Your task to perform on an android device: turn off notifications settings in the gmail app Image 0: 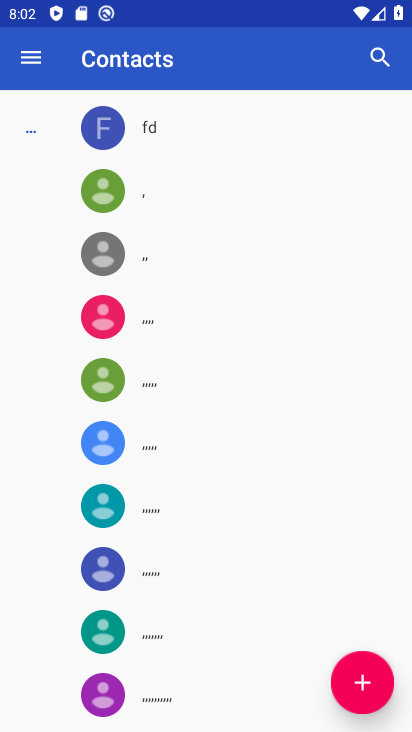
Step 0: press home button
Your task to perform on an android device: turn off notifications settings in the gmail app Image 1: 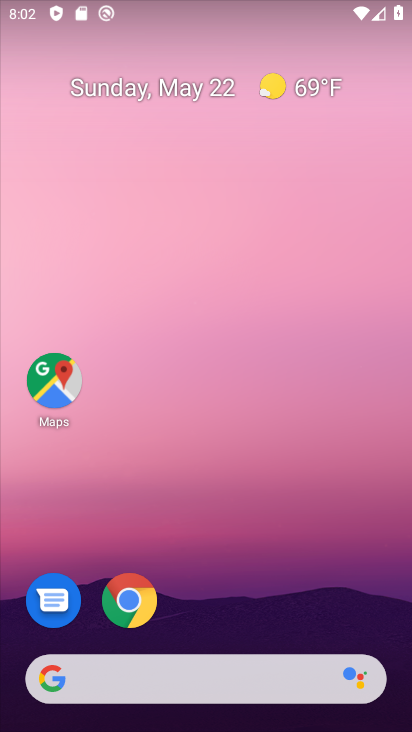
Step 1: drag from (287, 475) to (357, 70)
Your task to perform on an android device: turn off notifications settings in the gmail app Image 2: 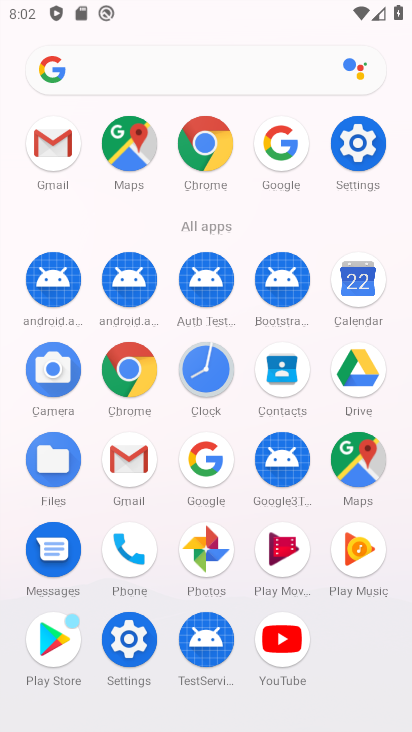
Step 2: click (125, 460)
Your task to perform on an android device: turn off notifications settings in the gmail app Image 3: 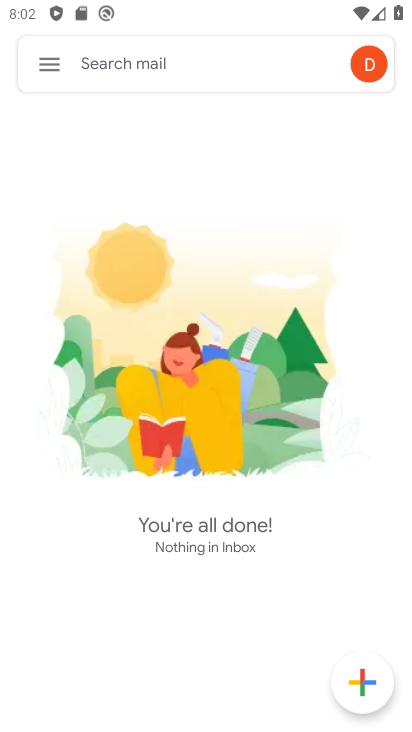
Step 3: click (46, 65)
Your task to perform on an android device: turn off notifications settings in the gmail app Image 4: 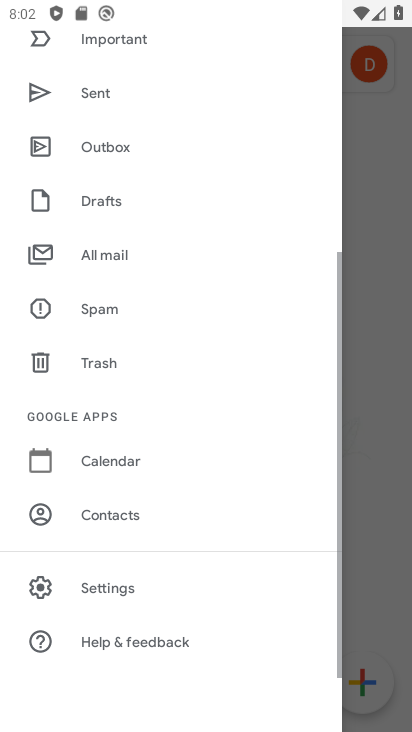
Step 4: drag from (87, 599) to (96, 546)
Your task to perform on an android device: turn off notifications settings in the gmail app Image 5: 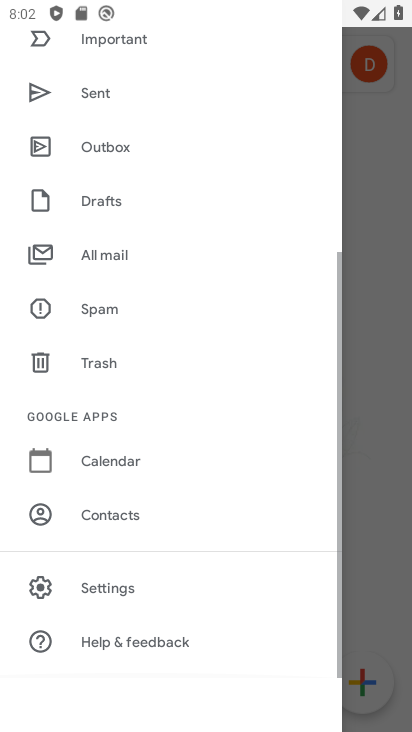
Step 5: click (93, 597)
Your task to perform on an android device: turn off notifications settings in the gmail app Image 6: 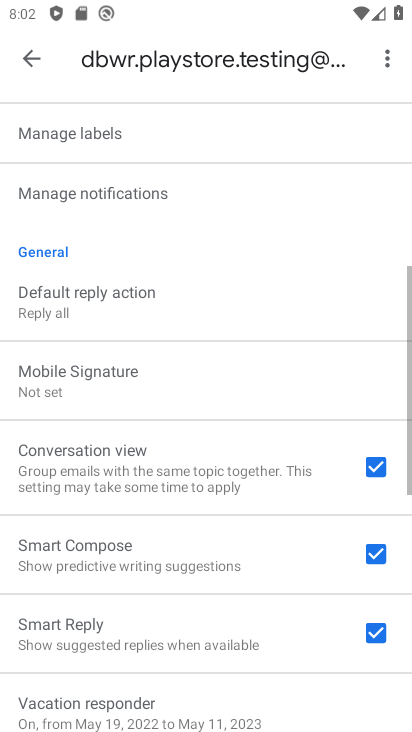
Step 6: drag from (93, 597) to (188, 236)
Your task to perform on an android device: turn off notifications settings in the gmail app Image 7: 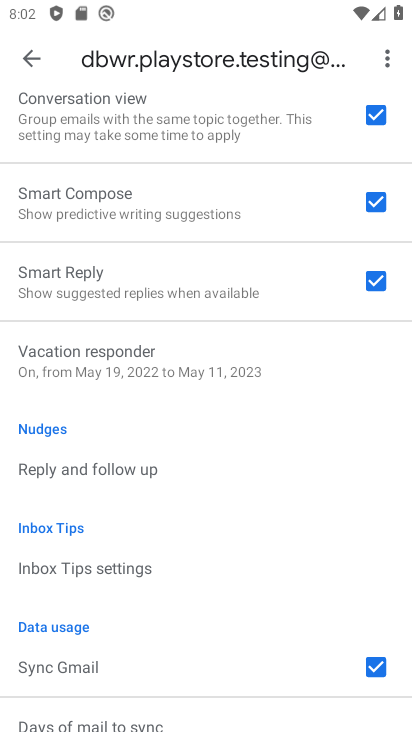
Step 7: drag from (180, 193) to (237, 655)
Your task to perform on an android device: turn off notifications settings in the gmail app Image 8: 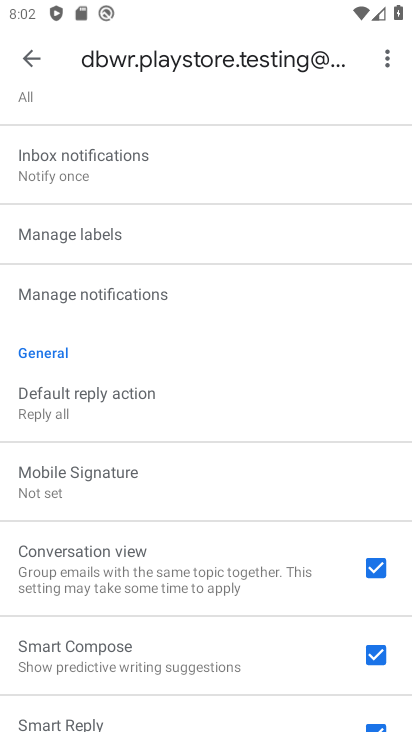
Step 8: drag from (207, 273) to (237, 497)
Your task to perform on an android device: turn off notifications settings in the gmail app Image 9: 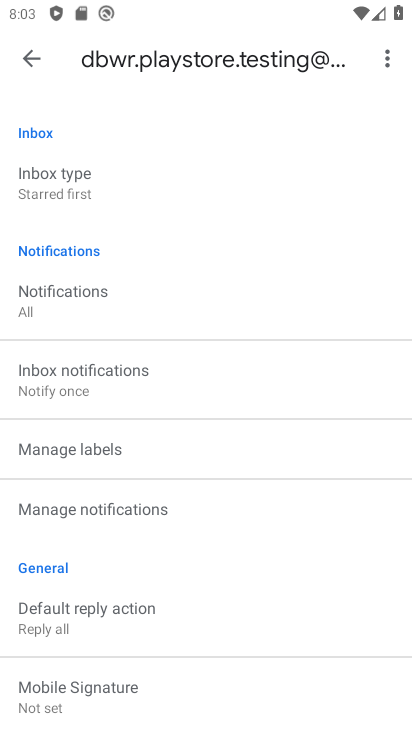
Step 9: click (72, 368)
Your task to perform on an android device: turn off notifications settings in the gmail app Image 10: 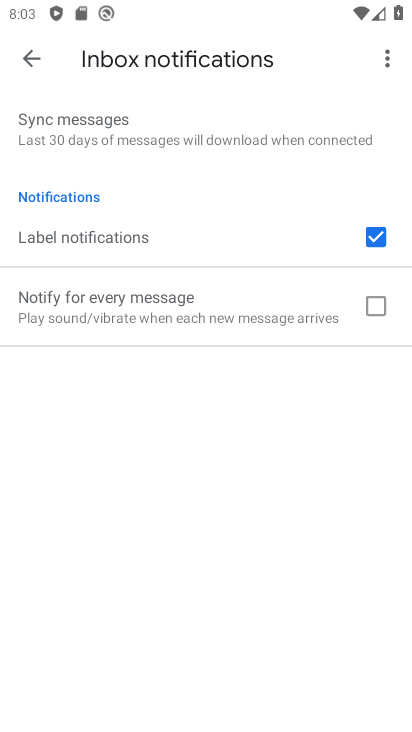
Step 10: press back button
Your task to perform on an android device: turn off notifications settings in the gmail app Image 11: 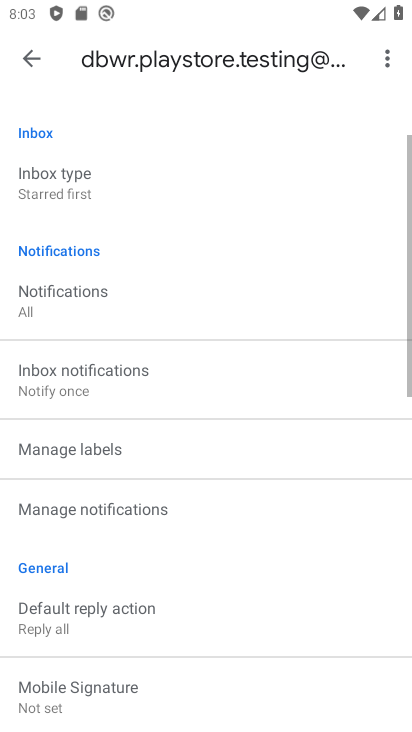
Step 11: click (68, 295)
Your task to perform on an android device: turn off notifications settings in the gmail app Image 12: 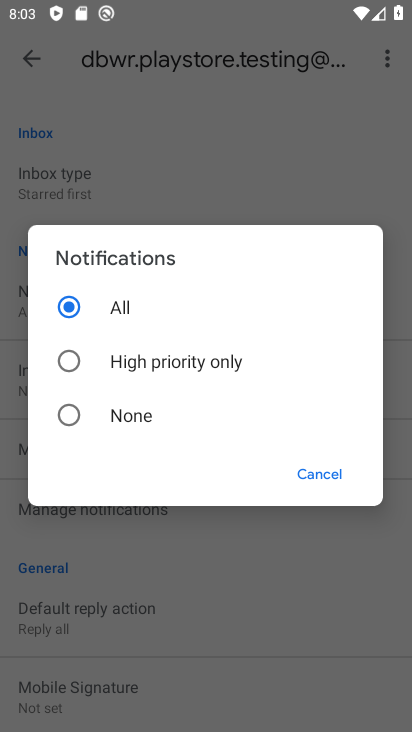
Step 12: click (101, 411)
Your task to perform on an android device: turn off notifications settings in the gmail app Image 13: 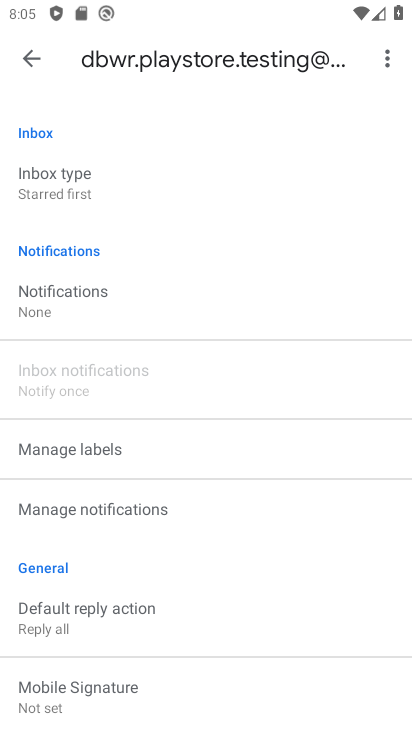
Step 13: task complete